Your task to perform on an android device: Open privacy settings Image 0: 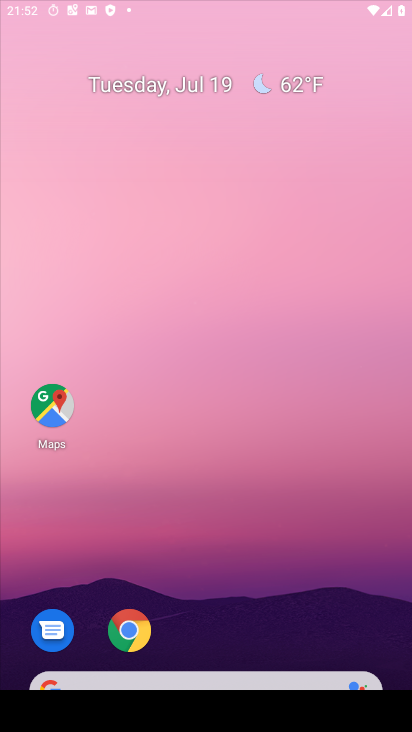
Step 0: click (171, 110)
Your task to perform on an android device: Open privacy settings Image 1: 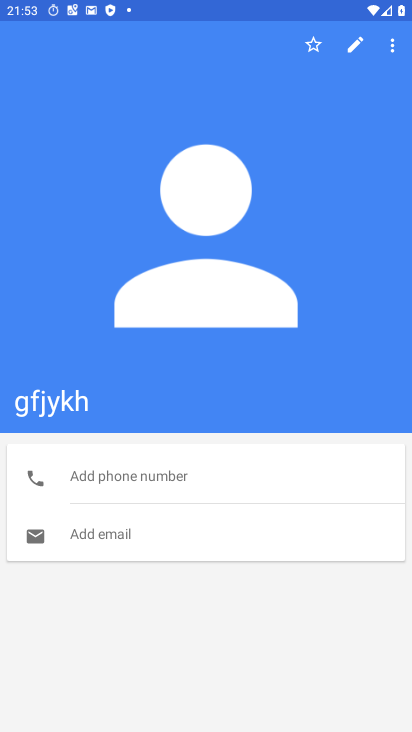
Step 1: press home button
Your task to perform on an android device: Open privacy settings Image 2: 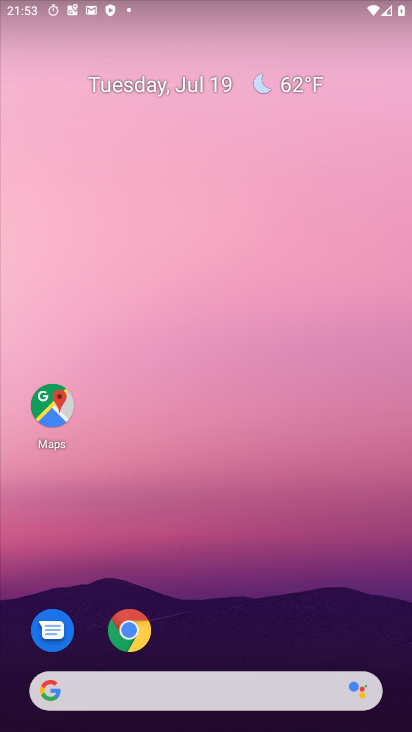
Step 2: drag from (18, 683) to (182, 20)
Your task to perform on an android device: Open privacy settings Image 3: 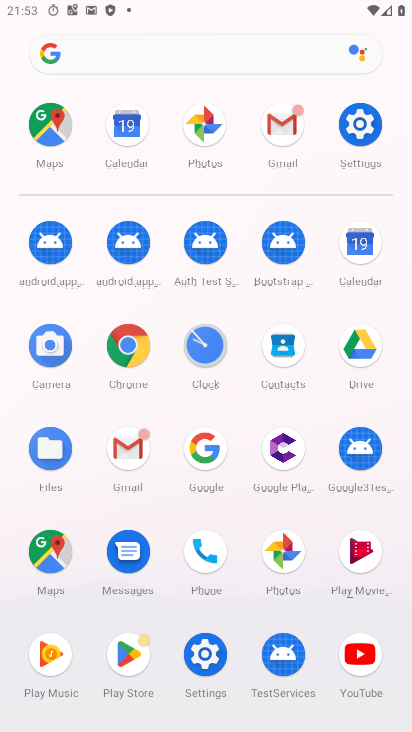
Step 3: click (201, 646)
Your task to perform on an android device: Open privacy settings Image 4: 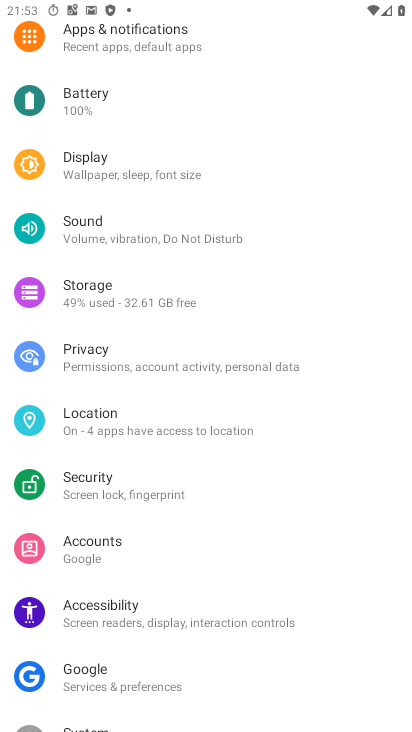
Step 4: click (117, 359)
Your task to perform on an android device: Open privacy settings Image 5: 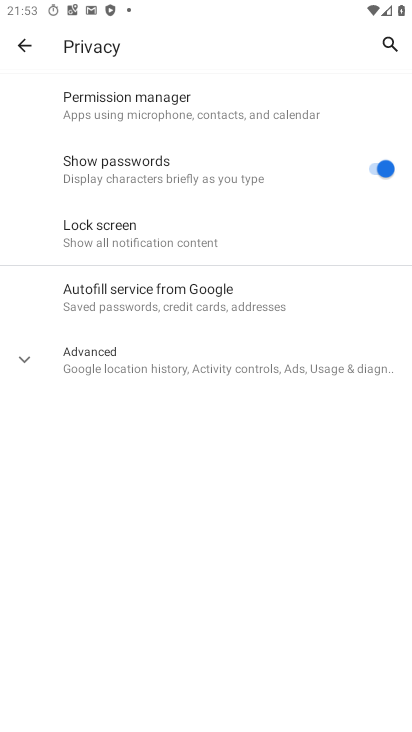
Step 5: task complete